Your task to perform on an android device: Open calendar and show me the third week of next month Image 0: 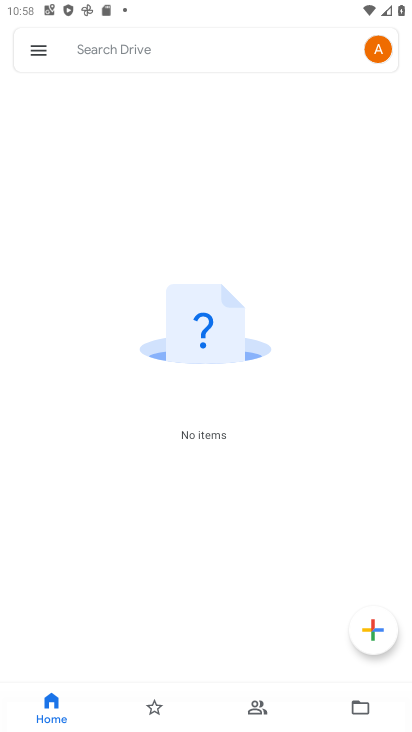
Step 0: press home button
Your task to perform on an android device: Open calendar and show me the third week of next month Image 1: 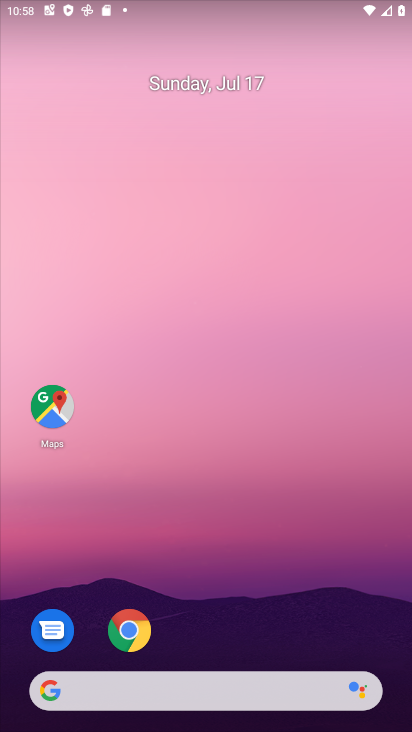
Step 1: drag from (250, 638) to (206, 37)
Your task to perform on an android device: Open calendar and show me the third week of next month Image 2: 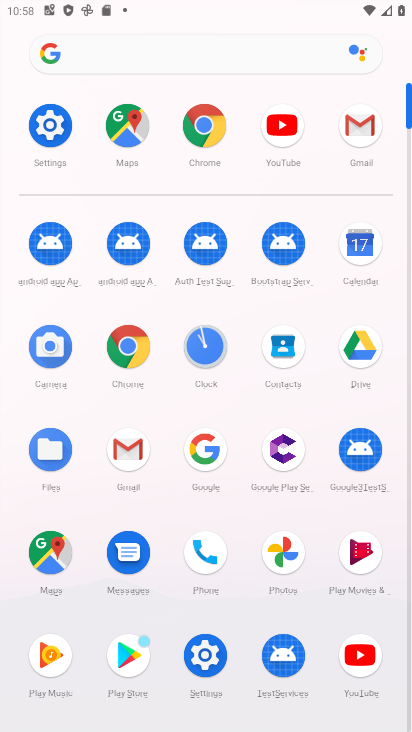
Step 2: click (370, 260)
Your task to perform on an android device: Open calendar and show me the third week of next month Image 3: 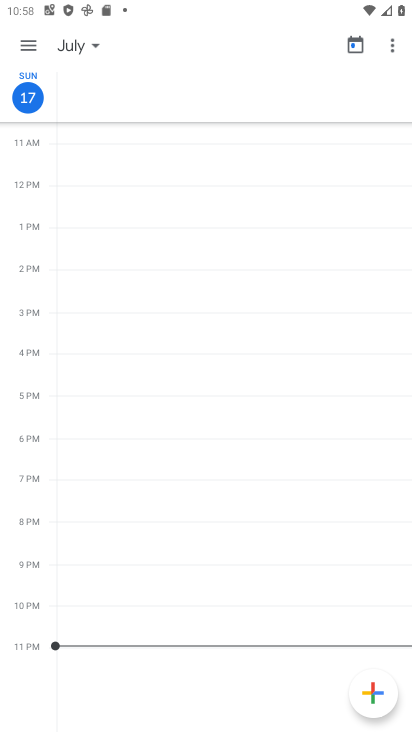
Step 3: click (25, 51)
Your task to perform on an android device: Open calendar and show me the third week of next month Image 4: 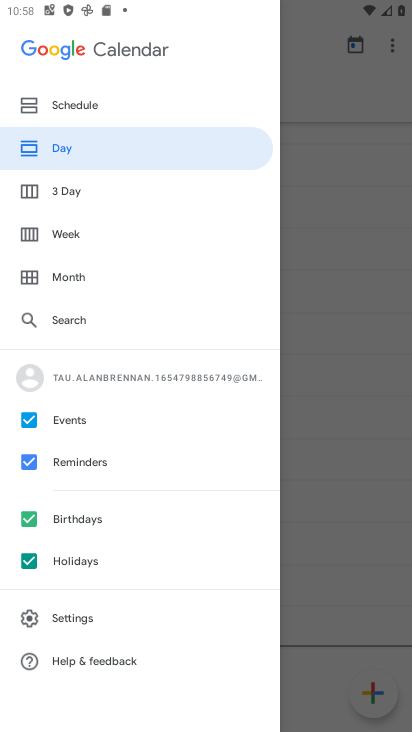
Step 4: task complete